Your task to perform on an android device: delete location history Image 0: 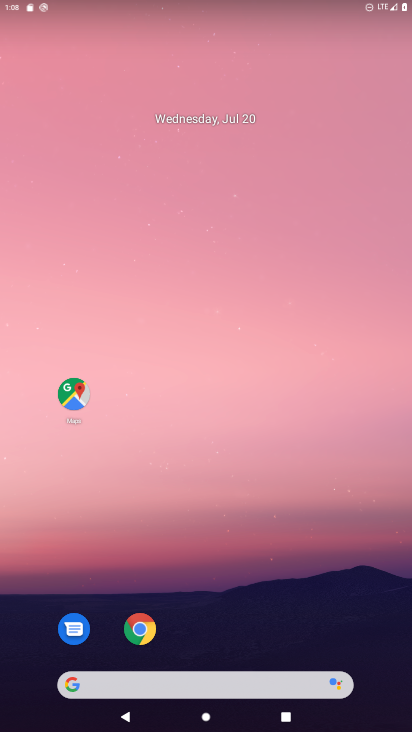
Step 0: drag from (197, 618) to (196, 68)
Your task to perform on an android device: delete location history Image 1: 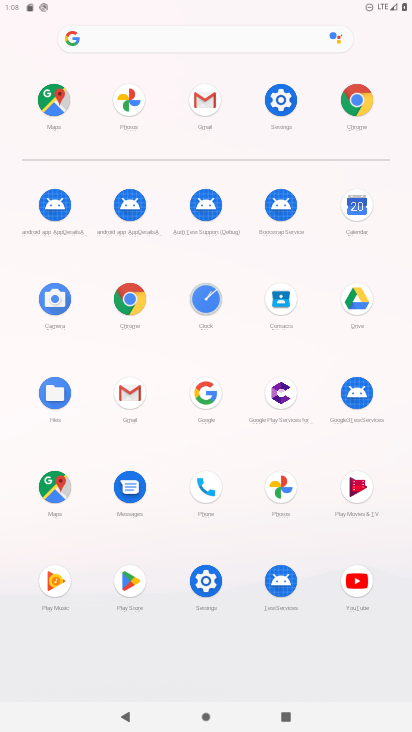
Step 1: click (285, 108)
Your task to perform on an android device: delete location history Image 2: 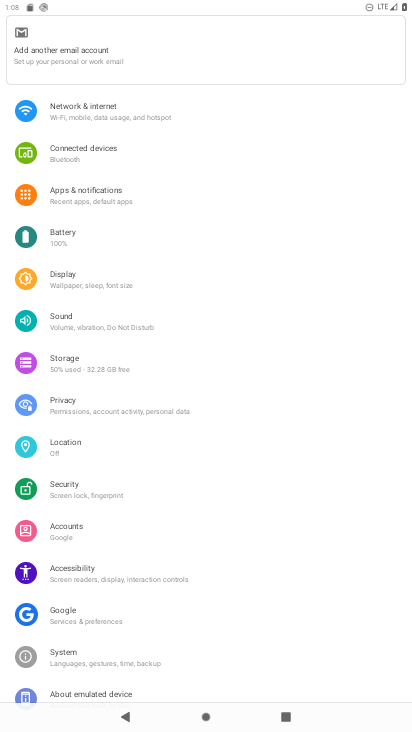
Step 2: click (61, 445)
Your task to perform on an android device: delete location history Image 3: 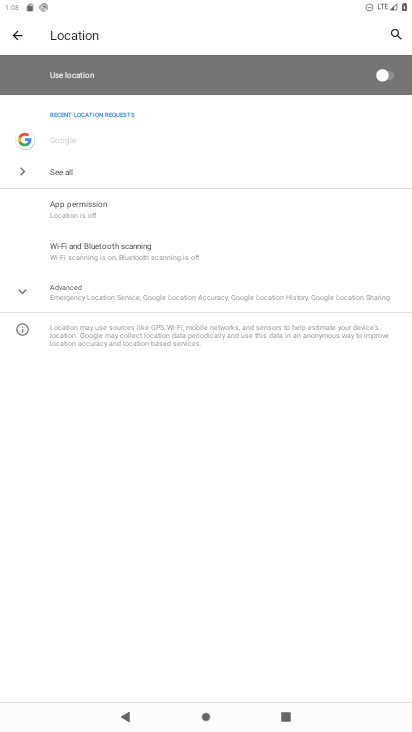
Step 3: click (61, 281)
Your task to perform on an android device: delete location history Image 4: 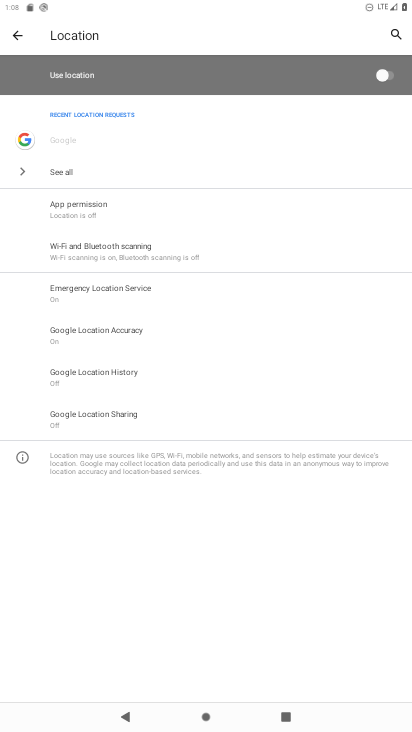
Step 4: click (87, 370)
Your task to perform on an android device: delete location history Image 5: 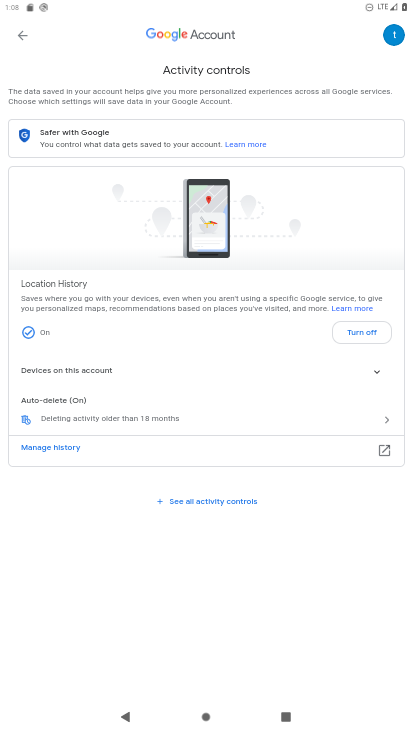
Step 5: click (44, 446)
Your task to perform on an android device: delete location history Image 6: 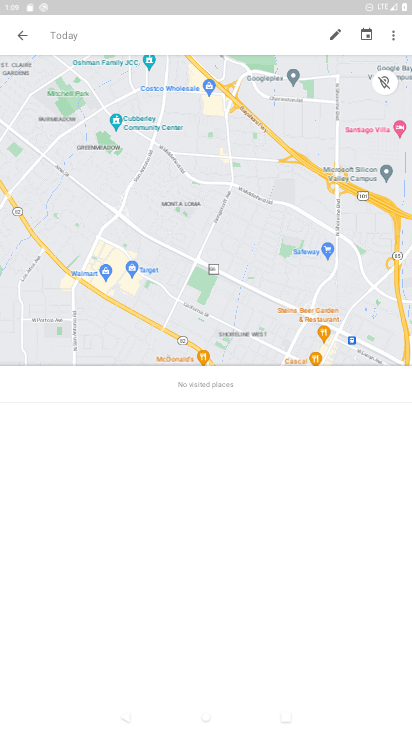
Step 6: click (392, 35)
Your task to perform on an android device: delete location history Image 7: 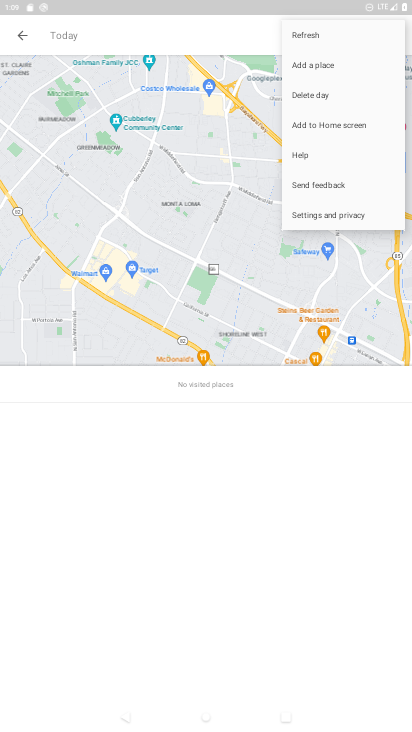
Step 7: click (329, 222)
Your task to perform on an android device: delete location history Image 8: 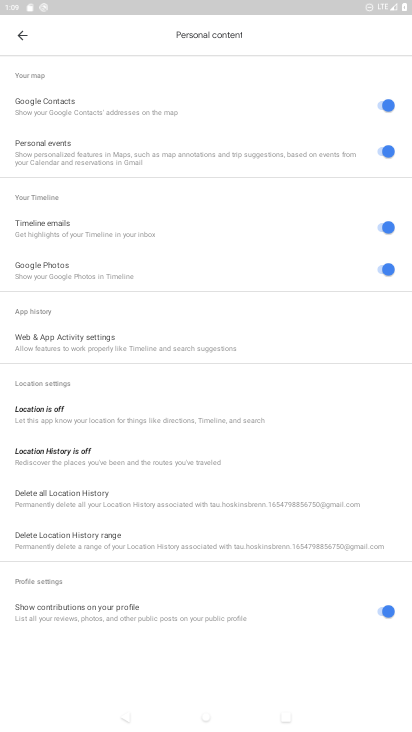
Step 8: click (112, 501)
Your task to perform on an android device: delete location history Image 9: 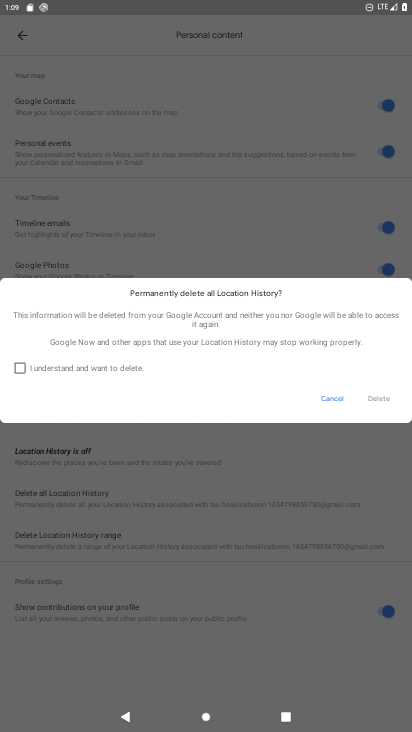
Step 9: click (387, 398)
Your task to perform on an android device: delete location history Image 10: 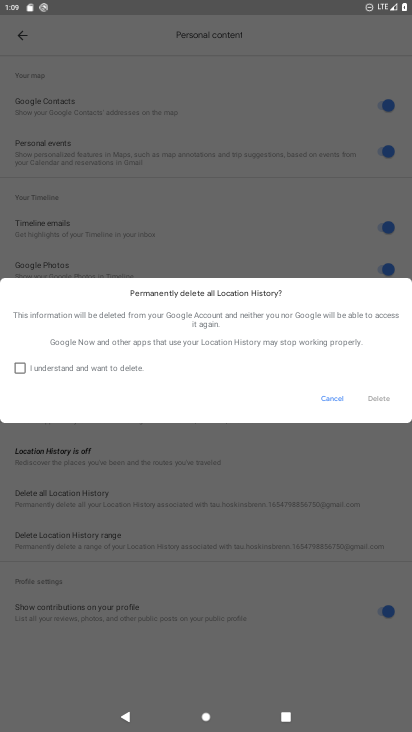
Step 10: click (18, 369)
Your task to perform on an android device: delete location history Image 11: 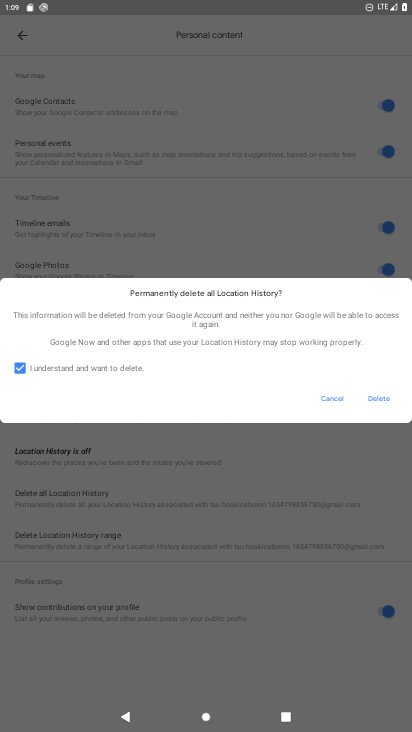
Step 11: click (383, 394)
Your task to perform on an android device: delete location history Image 12: 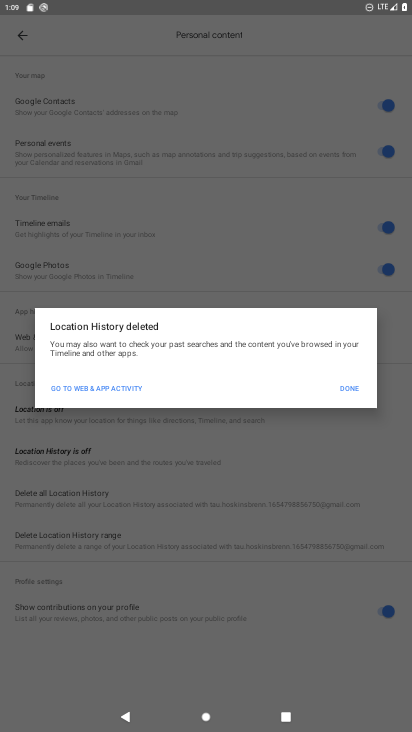
Step 12: click (339, 389)
Your task to perform on an android device: delete location history Image 13: 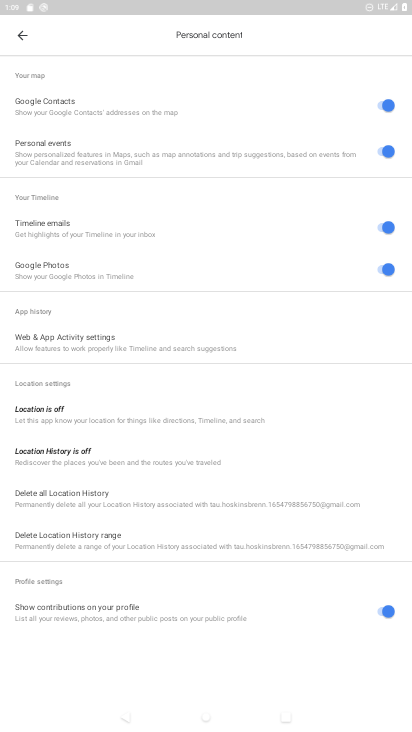
Step 13: task complete